Your task to perform on an android device: toggle show notifications on the lock screen Image 0: 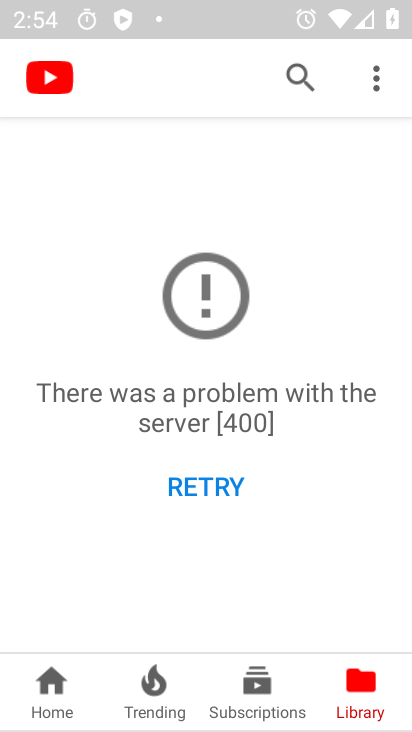
Step 0: press home button
Your task to perform on an android device: toggle show notifications on the lock screen Image 1: 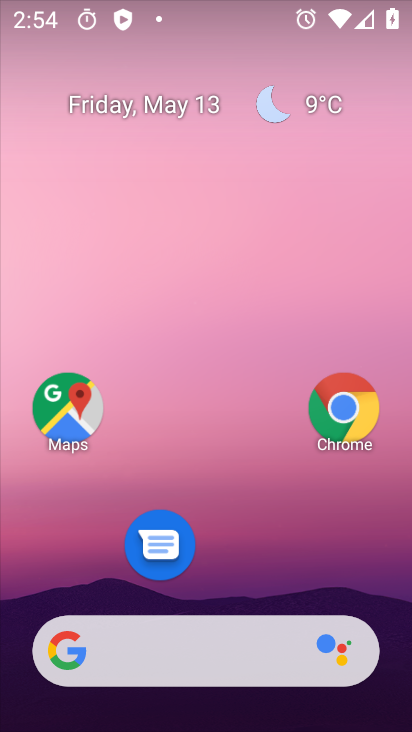
Step 1: drag from (269, 464) to (269, 129)
Your task to perform on an android device: toggle show notifications on the lock screen Image 2: 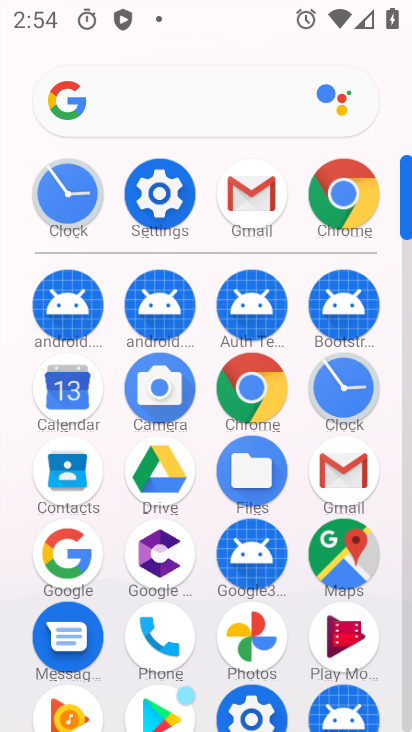
Step 2: click (144, 211)
Your task to perform on an android device: toggle show notifications on the lock screen Image 3: 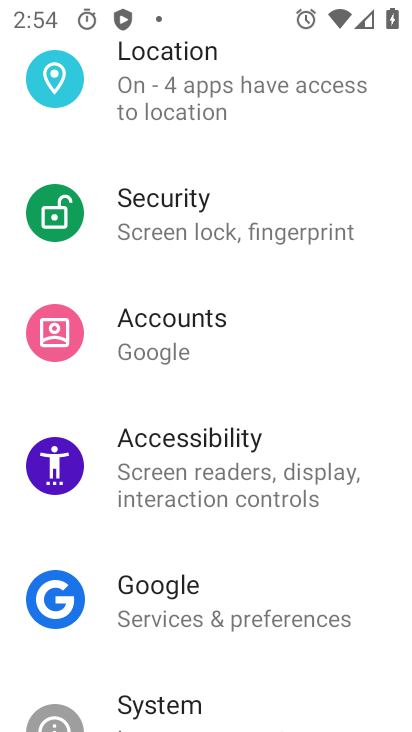
Step 3: drag from (339, 188) to (255, 487)
Your task to perform on an android device: toggle show notifications on the lock screen Image 4: 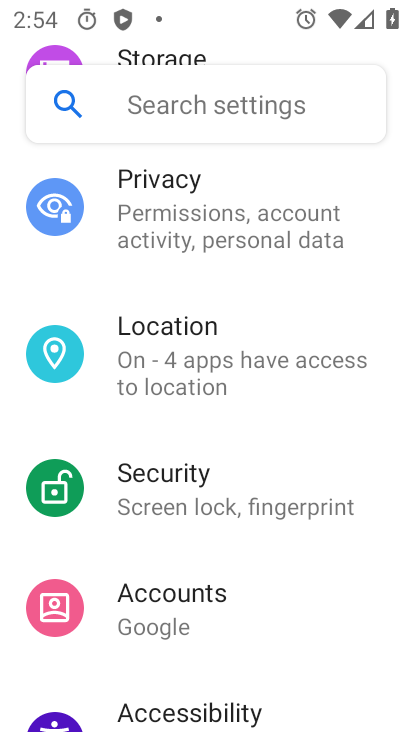
Step 4: drag from (339, 214) to (291, 447)
Your task to perform on an android device: toggle show notifications on the lock screen Image 5: 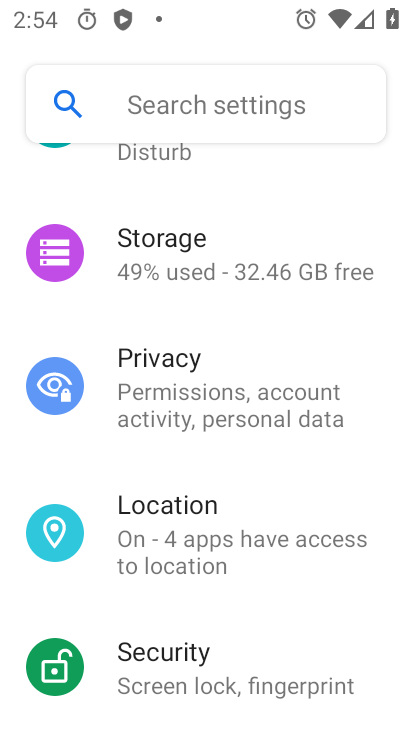
Step 5: drag from (310, 214) to (219, 570)
Your task to perform on an android device: toggle show notifications on the lock screen Image 6: 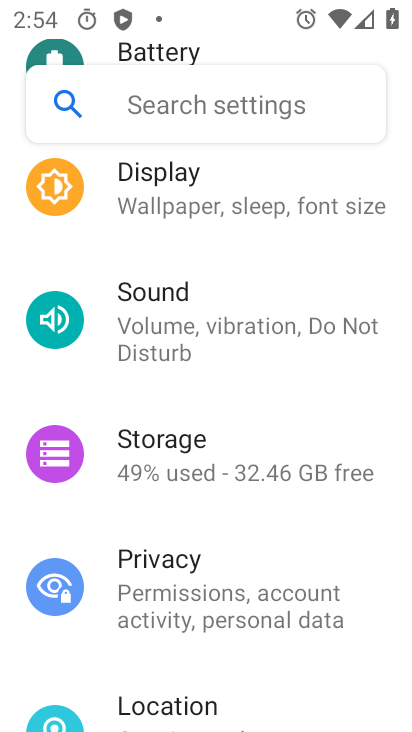
Step 6: drag from (222, 508) to (209, 589)
Your task to perform on an android device: toggle show notifications on the lock screen Image 7: 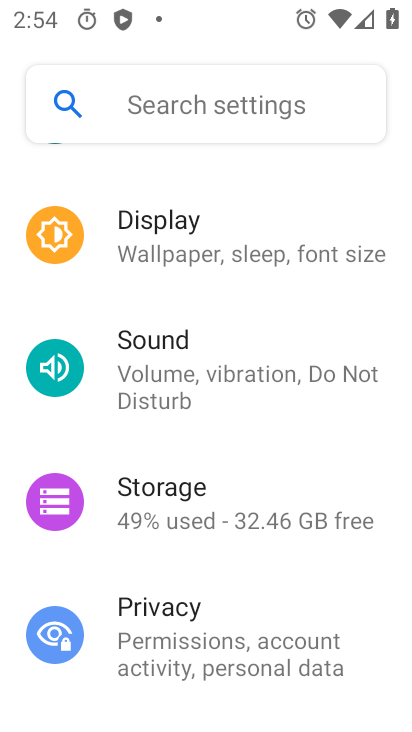
Step 7: drag from (274, 207) to (215, 537)
Your task to perform on an android device: toggle show notifications on the lock screen Image 8: 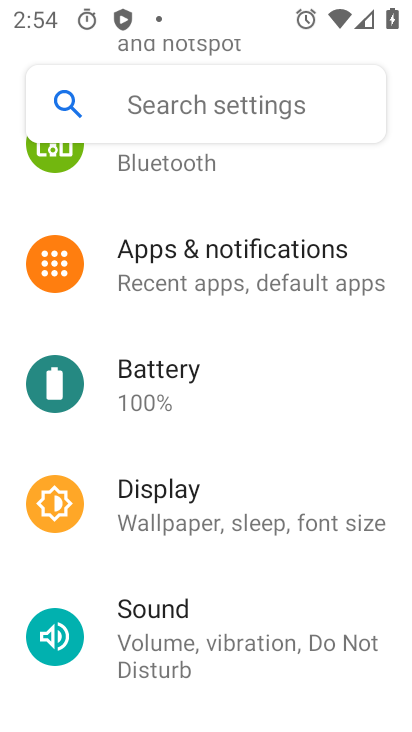
Step 8: click (250, 270)
Your task to perform on an android device: toggle show notifications on the lock screen Image 9: 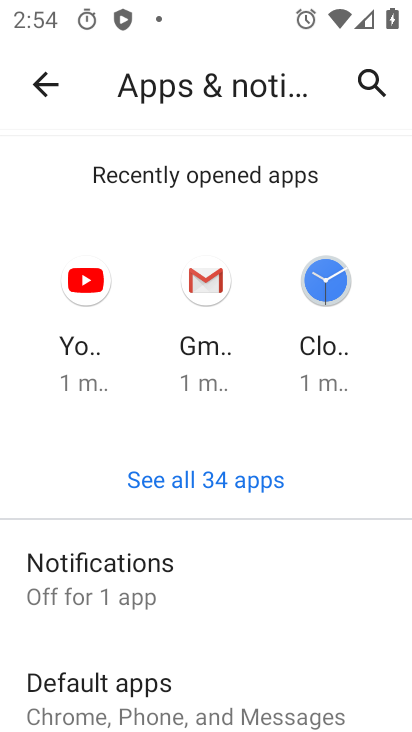
Step 9: click (119, 577)
Your task to perform on an android device: toggle show notifications on the lock screen Image 10: 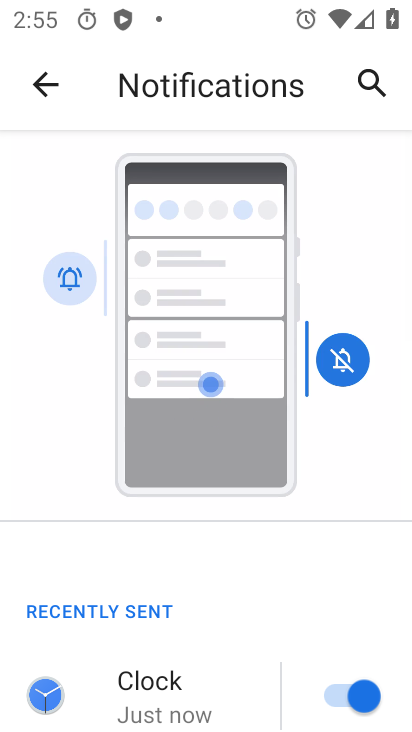
Step 10: drag from (224, 670) to (312, 165)
Your task to perform on an android device: toggle show notifications on the lock screen Image 11: 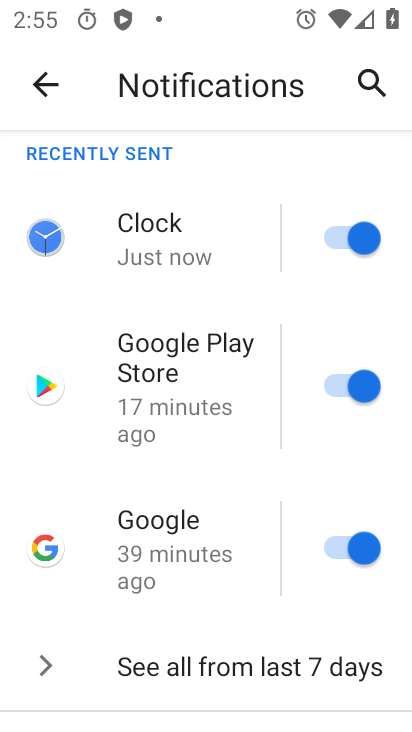
Step 11: drag from (233, 692) to (284, 288)
Your task to perform on an android device: toggle show notifications on the lock screen Image 12: 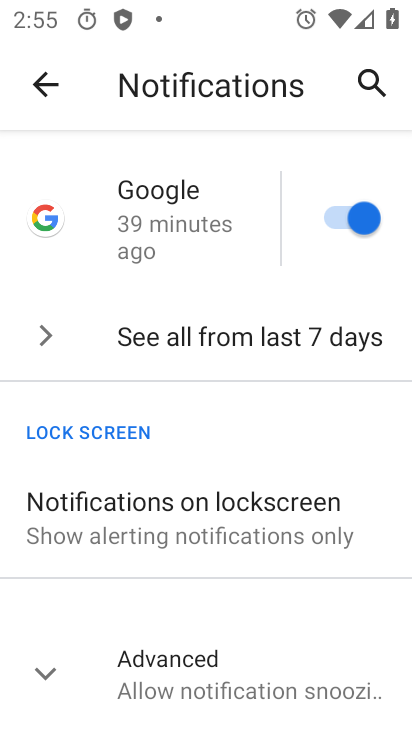
Step 12: click (199, 504)
Your task to perform on an android device: toggle show notifications on the lock screen Image 13: 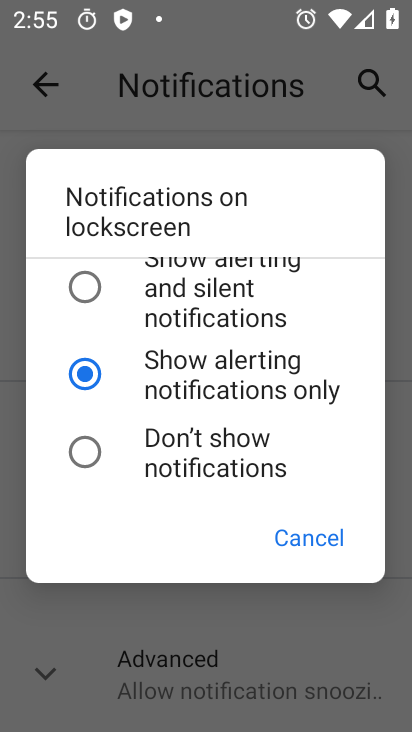
Step 13: click (164, 451)
Your task to perform on an android device: toggle show notifications on the lock screen Image 14: 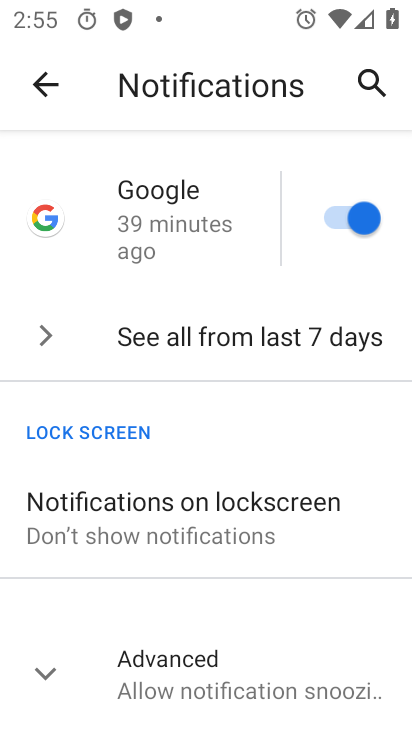
Step 14: task complete